Your task to perform on an android device: Open Google Image 0: 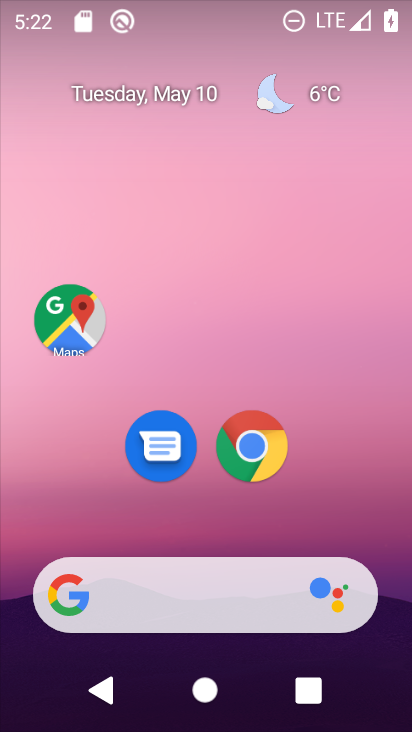
Step 0: drag from (201, 518) to (177, 119)
Your task to perform on an android device: Open Google Image 1: 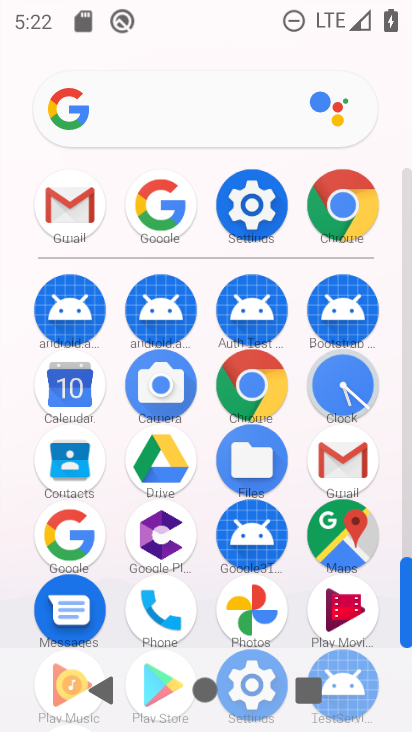
Step 1: click (84, 543)
Your task to perform on an android device: Open Google Image 2: 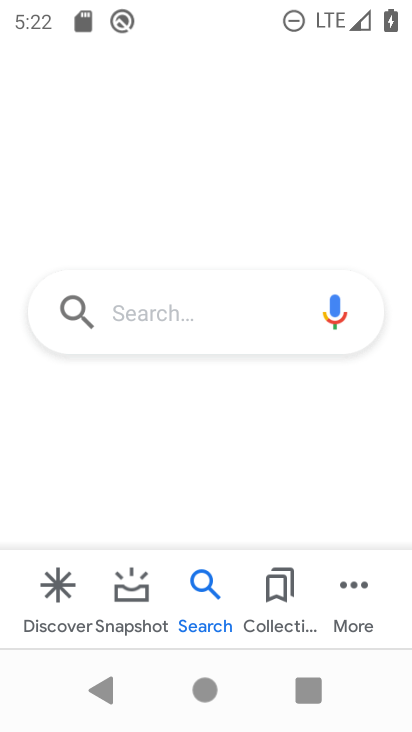
Step 2: task complete